Your task to perform on an android device: turn on data saver in the chrome app Image 0: 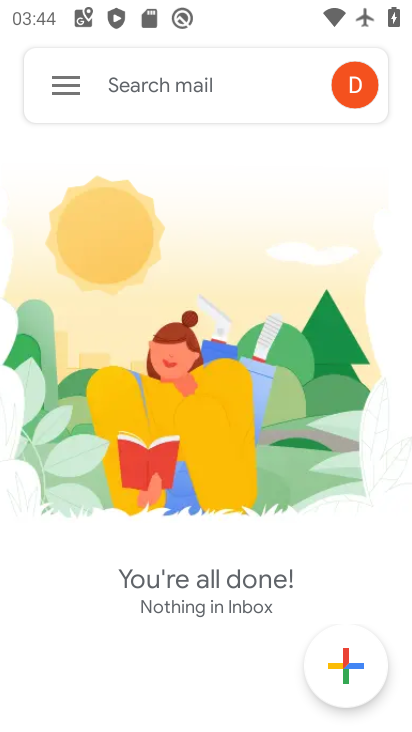
Step 0: press home button
Your task to perform on an android device: turn on data saver in the chrome app Image 1: 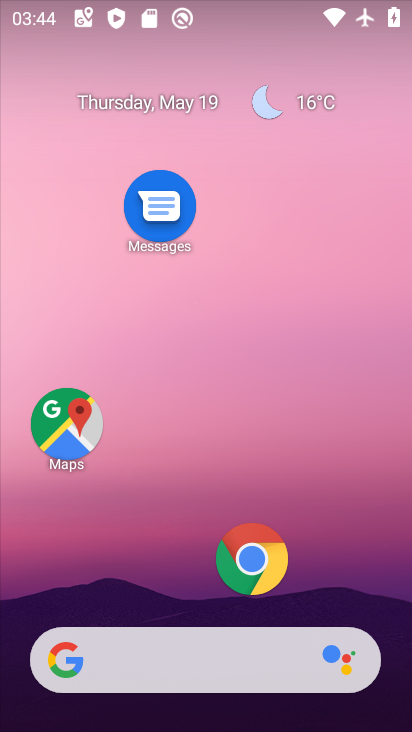
Step 1: click (244, 572)
Your task to perform on an android device: turn on data saver in the chrome app Image 2: 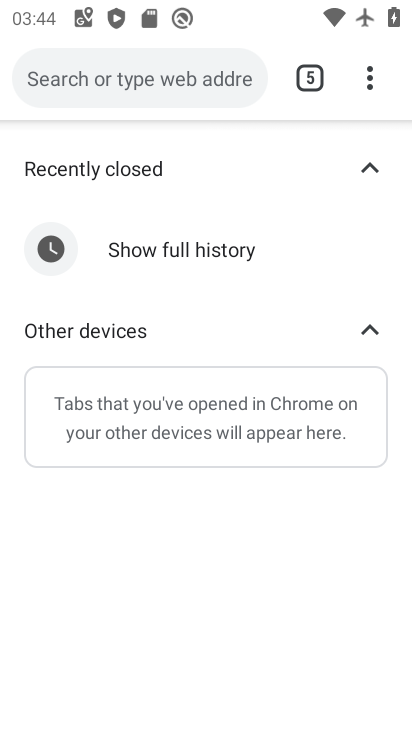
Step 2: click (369, 82)
Your task to perform on an android device: turn on data saver in the chrome app Image 3: 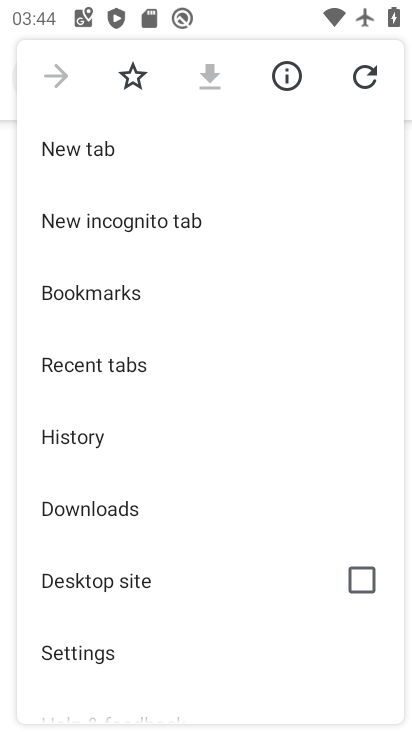
Step 3: drag from (164, 627) to (167, 417)
Your task to perform on an android device: turn on data saver in the chrome app Image 4: 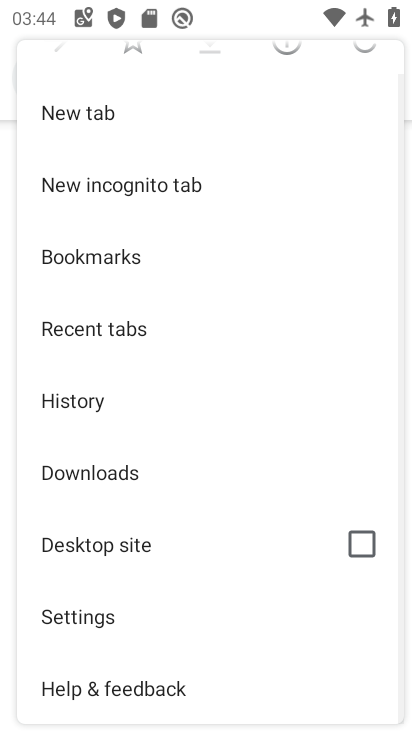
Step 4: click (93, 603)
Your task to perform on an android device: turn on data saver in the chrome app Image 5: 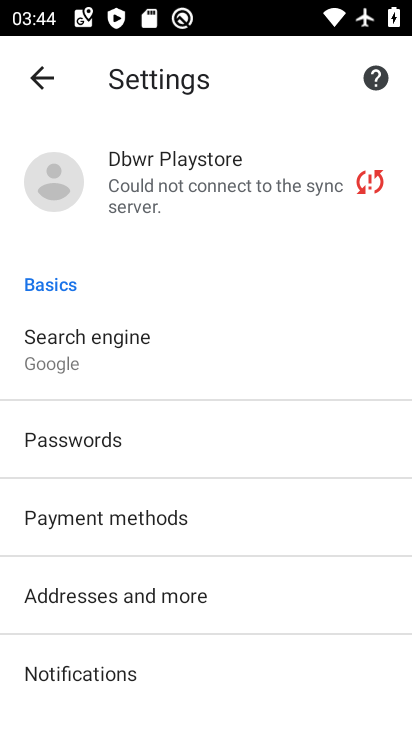
Step 5: drag from (230, 625) to (221, 421)
Your task to perform on an android device: turn on data saver in the chrome app Image 6: 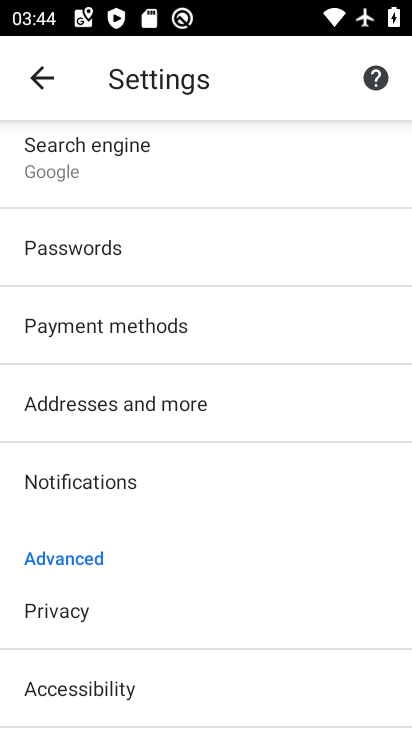
Step 6: drag from (219, 624) to (219, 432)
Your task to perform on an android device: turn on data saver in the chrome app Image 7: 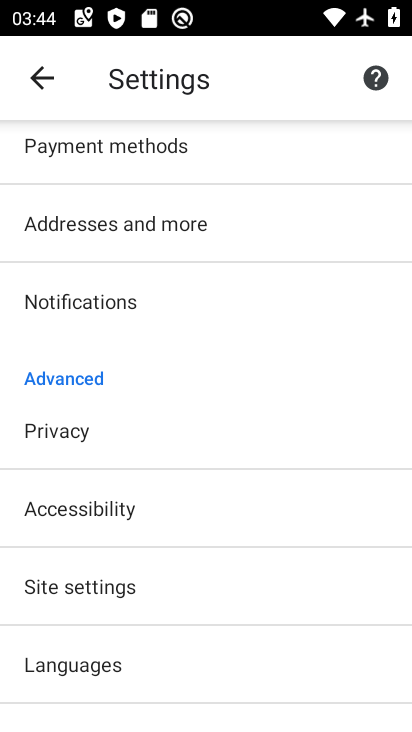
Step 7: drag from (183, 598) to (223, 448)
Your task to perform on an android device: turn on data saver in the chrome app Image 8: 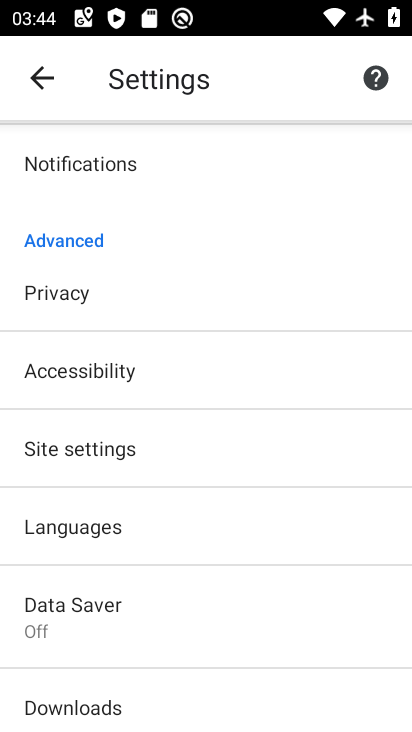
Step 8: click (165, 628)
Your task to perform on an android device: turn on data saver in the chrome app Image 9: 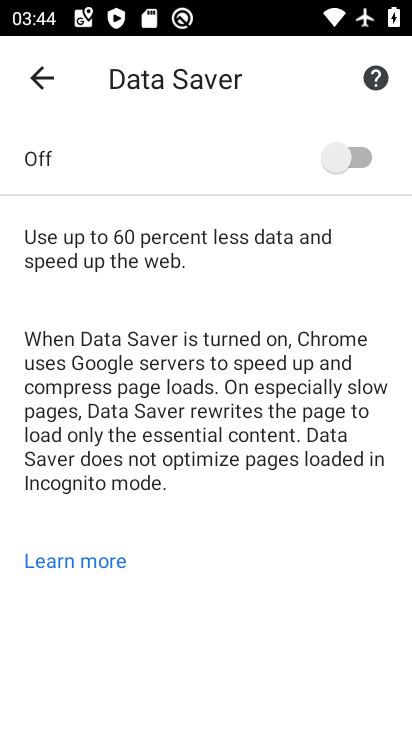
Step 9: click (357, 163)
Your task to perform on an android device: turn on data saver in the chrome app Image 10: 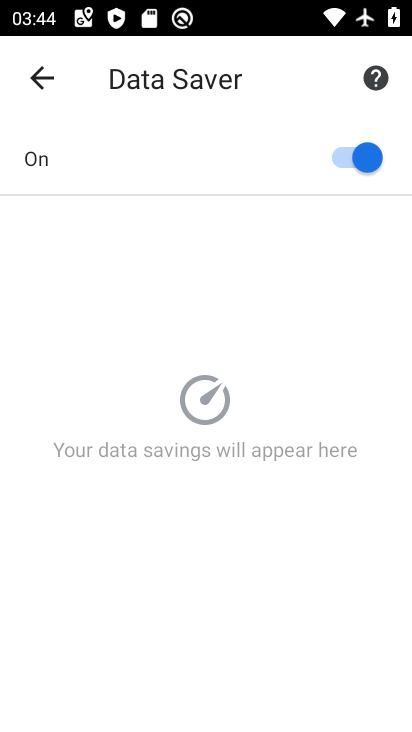
Step 10: task complete